Your task to perform on an android device: Open calendar and show me the first week of next month Image 0: 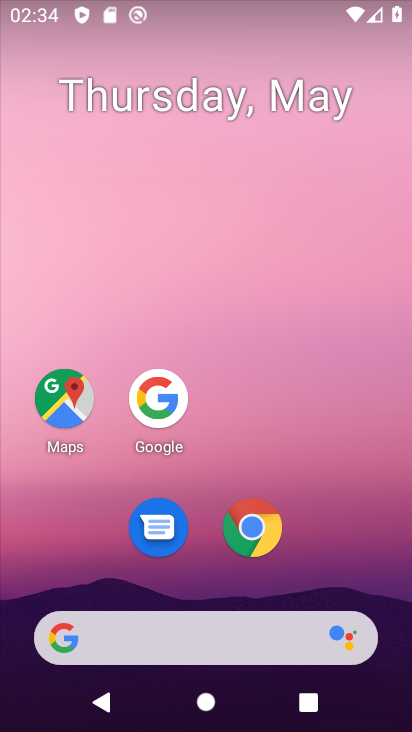
Step 0: drag from (273, 265) to (289, 114)
Your task to perform on an android device: Open calendar and show me the first week of next month Image 1: 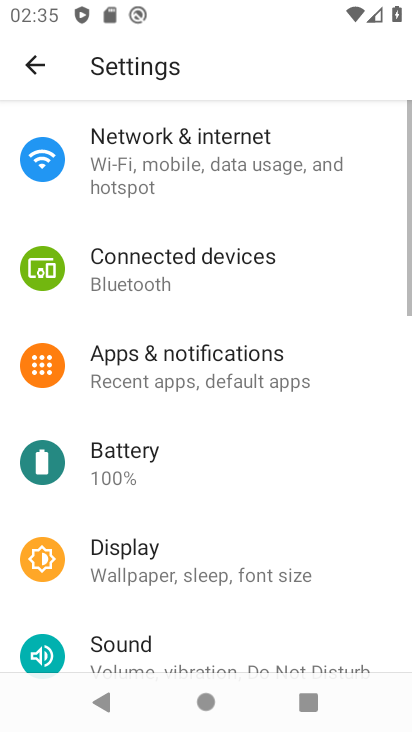
Step 1: press home button
Your task to perform on an android device: Open calendar and show me the first week of next month Image 2: 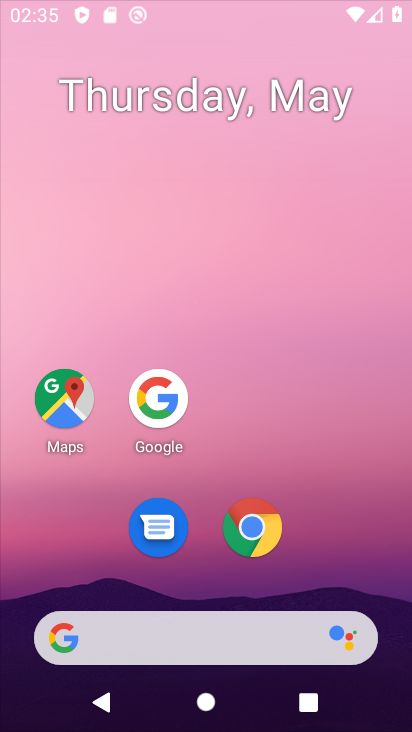
Step 2: drag from (201, 638) to (199, 143)
Your task to perform on an android device: Open calendar and show me the first week of next month Image 3: 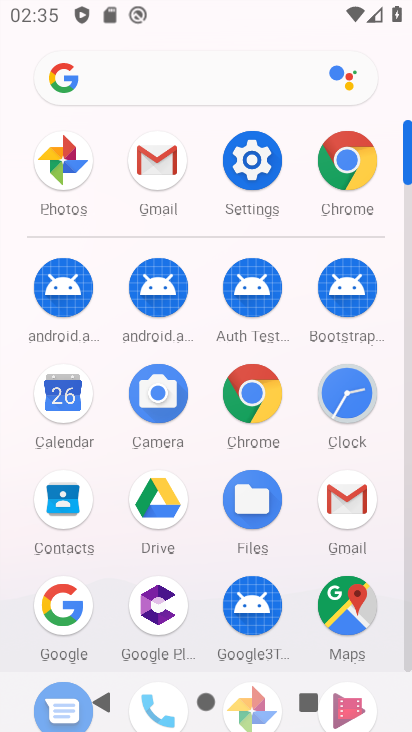
Step 3: click (59, 401)
Your task to perform on an android device: Open calendar and show me the first week of next month Image 4: 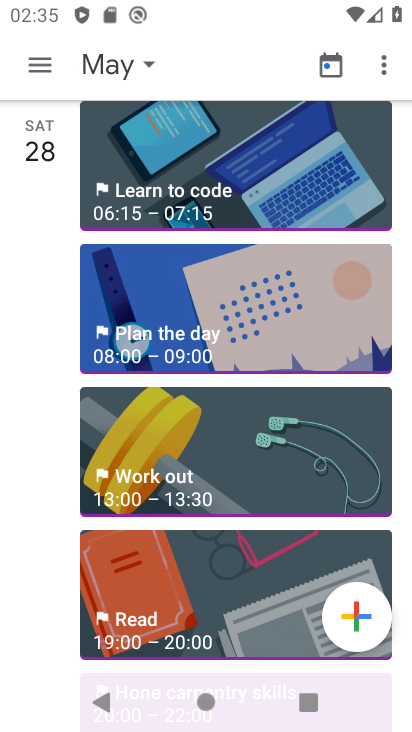
Step 4: click (122, 59)
Your task to perform on an android device: Open calendar and show me the first week of next month Image 5: 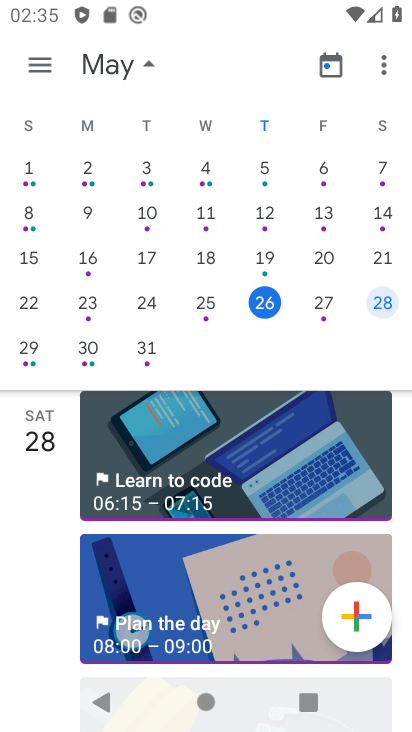
Step 5: drag from (383, 246) to (49, 239)
Your task to perform on an android device: Open calendar and show me the first week of next month Image 6: 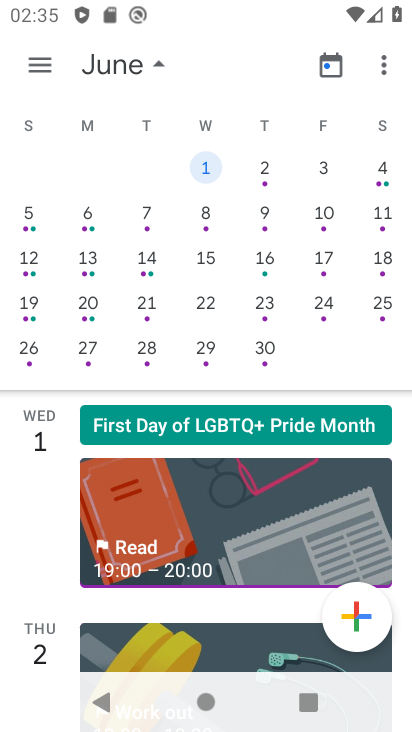
Step 6: click (268, 173)
Your task to perform on an android device: Open calendar and show me the first week of next month Image 7: 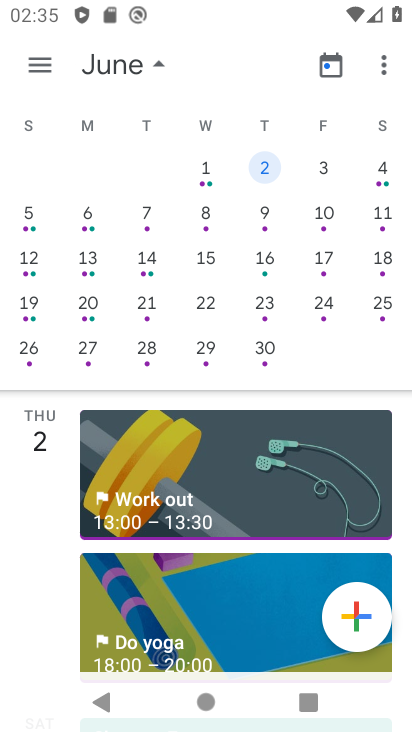
Step 7: click (375, 175)
Your task to perform on an android device: Open calendar and show me the first week of next month Image 8: 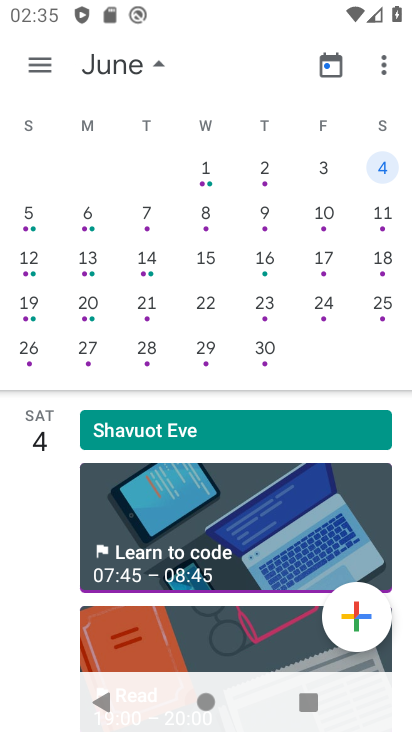
Step 8: click (285, 184)
Your task to perform on an android device: Open calendar and show me the first week of next month Image 9: 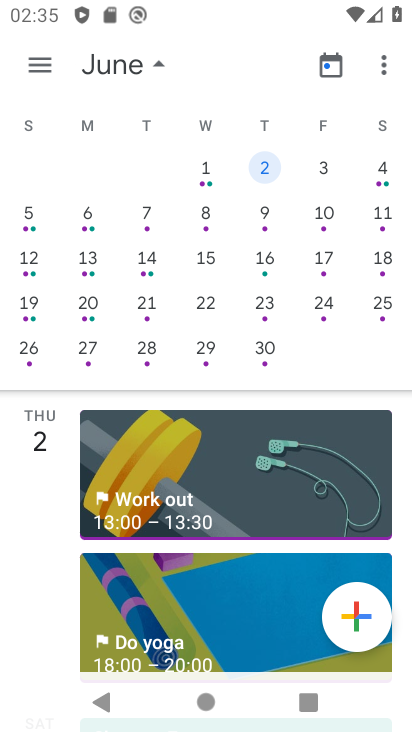
Step 9: task complete